Your task to perform on an android device: Open settings on Google Maps Image 0: 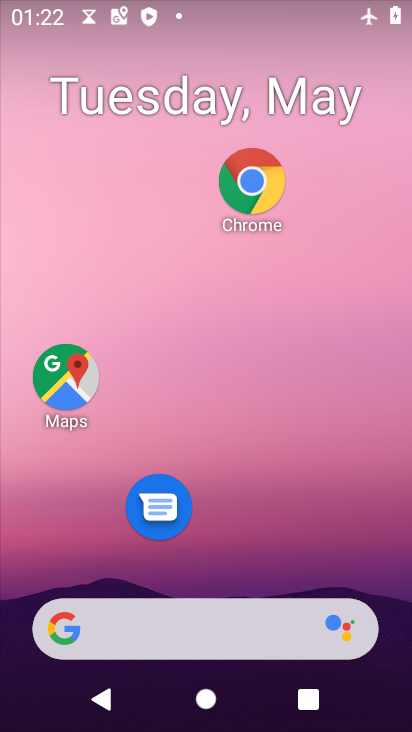
Step 0: drag from (267, 568) to (287, 313)
Your task to perform on an android device: Open settings on Google Maps Image 1: 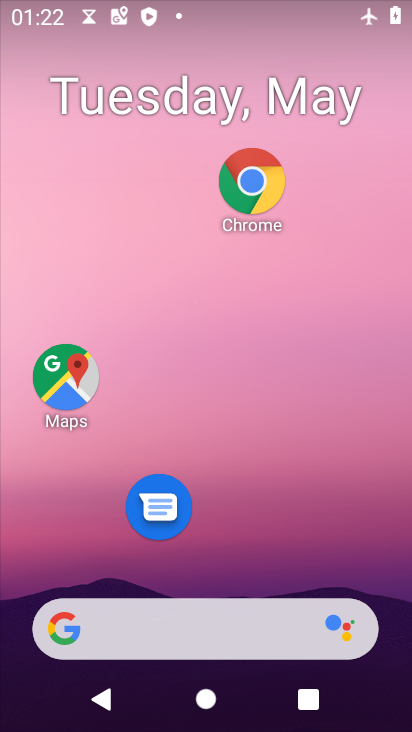
Step 1: drag from (275, 490) to (341, 170)
Your task to perform on an android device: Open settings on Google Maps Image 2: 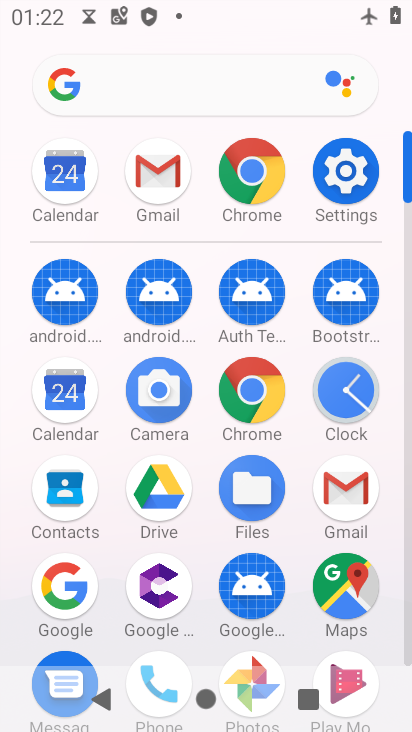
Step 2: click (341, 584)
Your task to perform on an android device: Open settings on Google Maps Image 3: 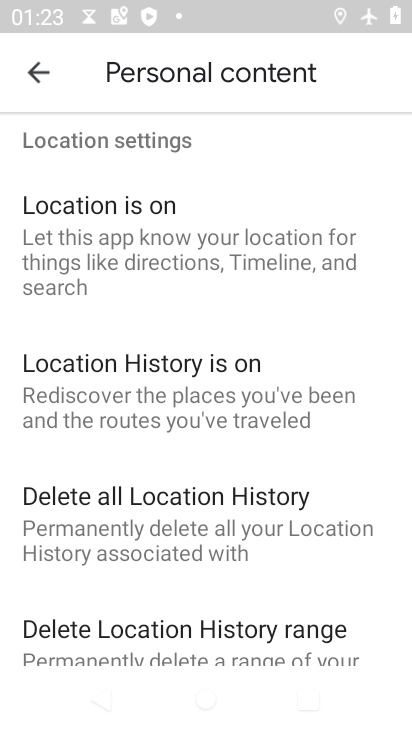
Step 3: click (32, 66)
Your task to perform on an android device: Open settings on Google Maps Image 4: 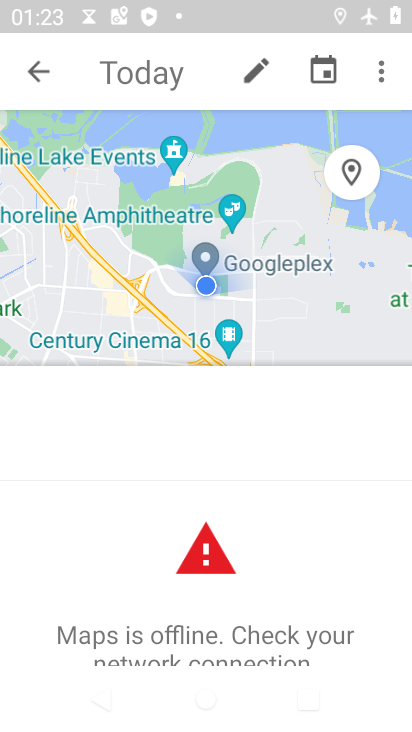
Step 4: click (56, 73)
Your task to perform on an android device: Open settings on Google Maps Image 5: 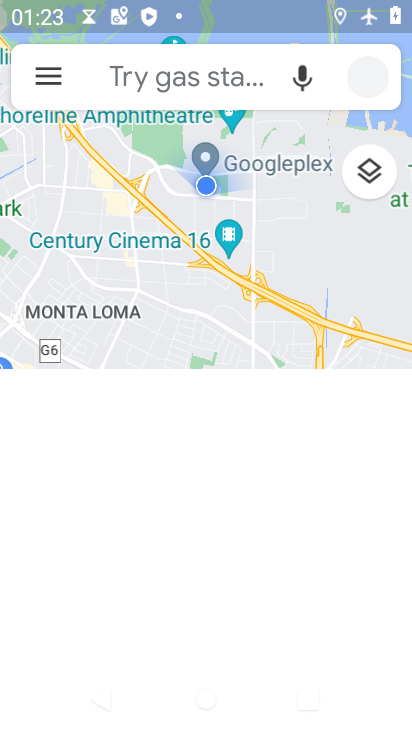
Step 5: task complete